Your task to perform on an android device: search for starred emails in the gmail app Image 0: 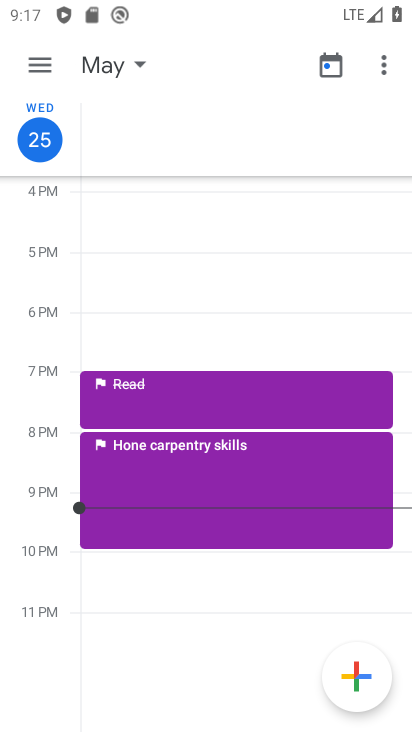
Step 0: press home button
Your task to perform on an android device: search for starred emails in the gmail app Image 1: 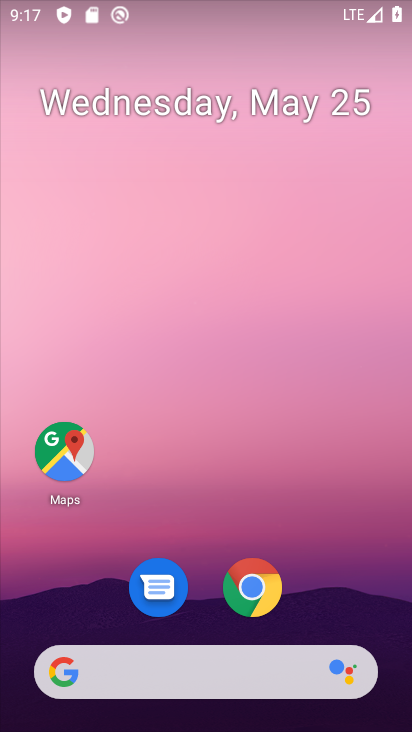
Step 1: drag from (206, 621) to (198, 0)
Your task to perform on an android device: search for starred emails in the gmail app Image 2: 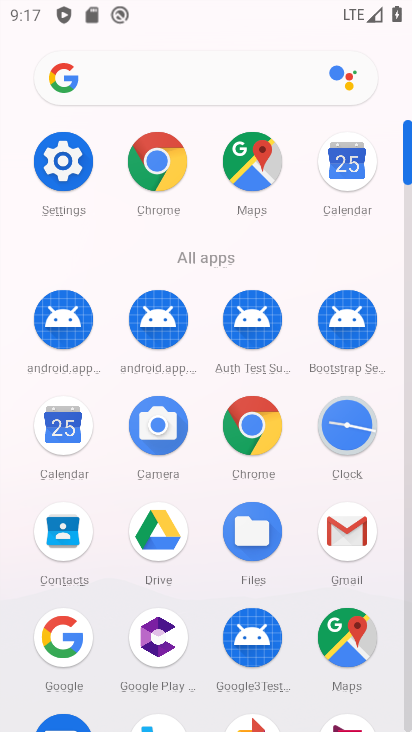
Step 2: click (351, 543)
Your task to perform on an android device: search for starred emails in the gmail app Image 3: 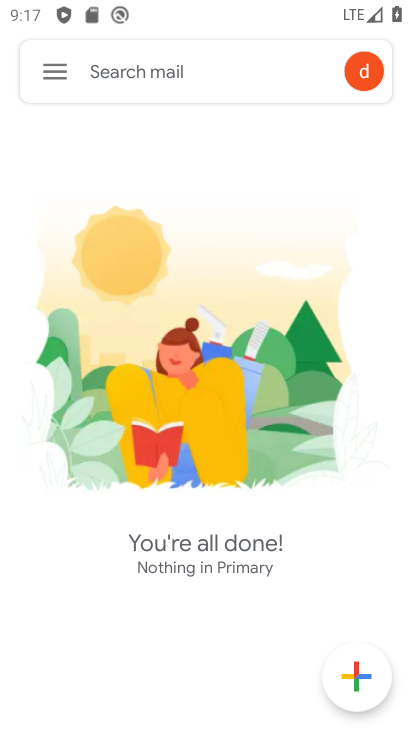
Step 3: click (46, 76)
Your task to perform on an android device: search for starred emails in the gmail app Image 4: 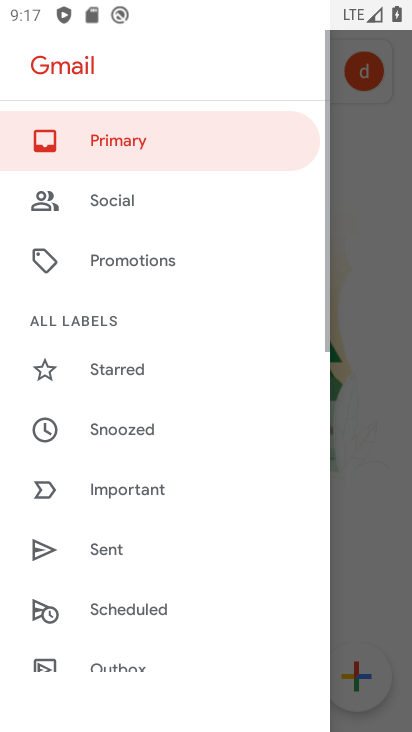
Step 4: click (117, 369)
Your task to perform on an android device: search for starred emails in the gmail app Image 5: 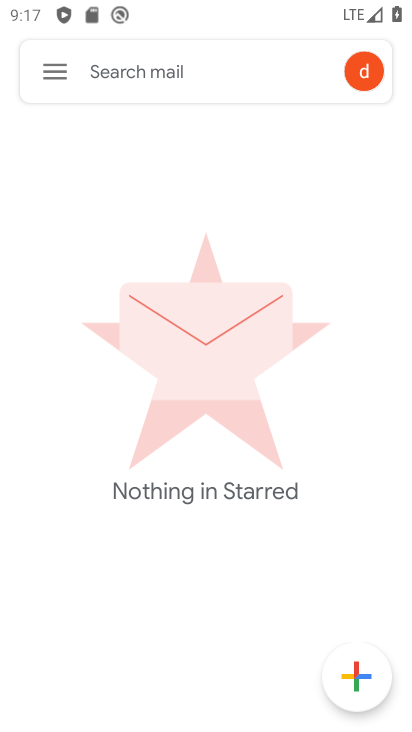
Step 5: task complete